Your task to perform on an android device: turn off javascript in the chrome app Image 0: 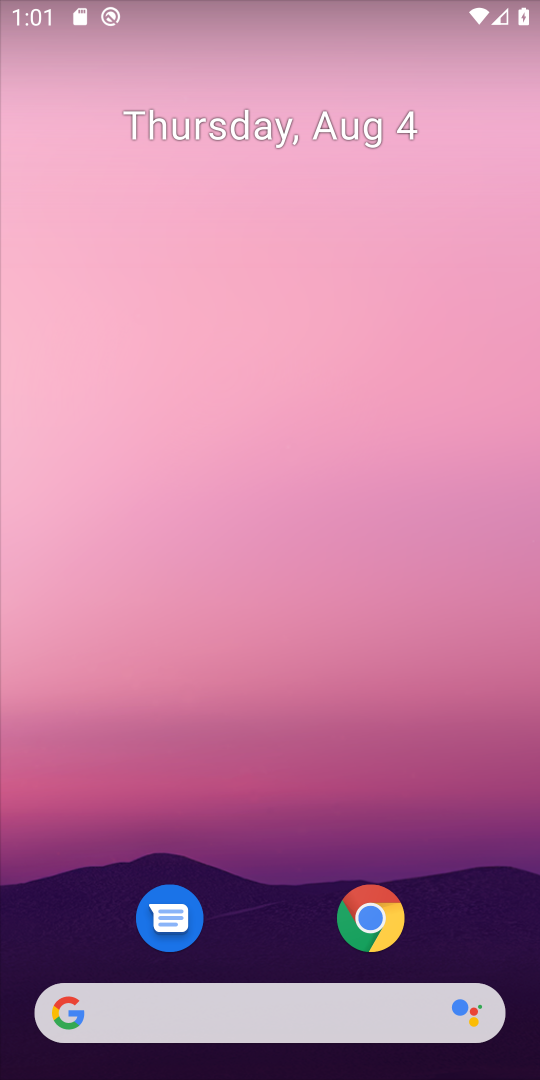
Step 0: click (383, 888)
Your task to perform on an android device: turn off javascript in the chrome app Image 1: 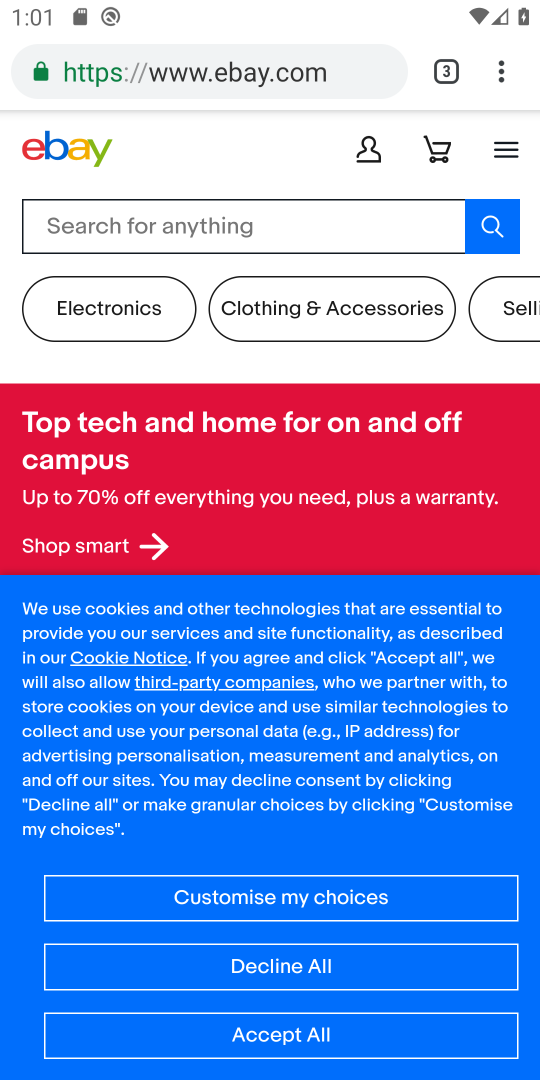
Step 1: click (512, 58)
Your task to perform on an android device: turn off javascript in the chrome app Image 2: 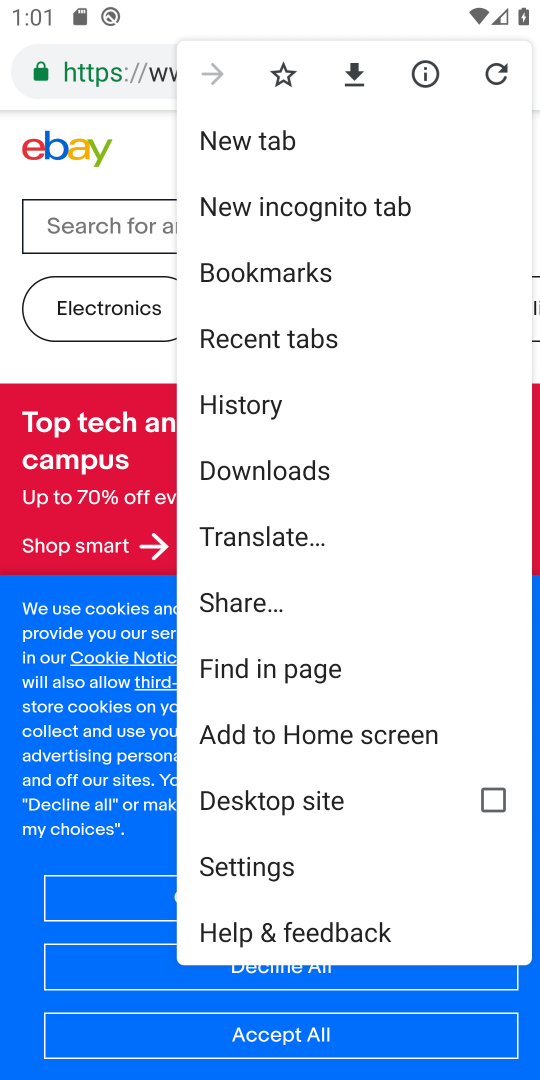
Step 2: click (245, 869)
Your task to perform on an android device: turn off javascript in the chrome app Image 3: 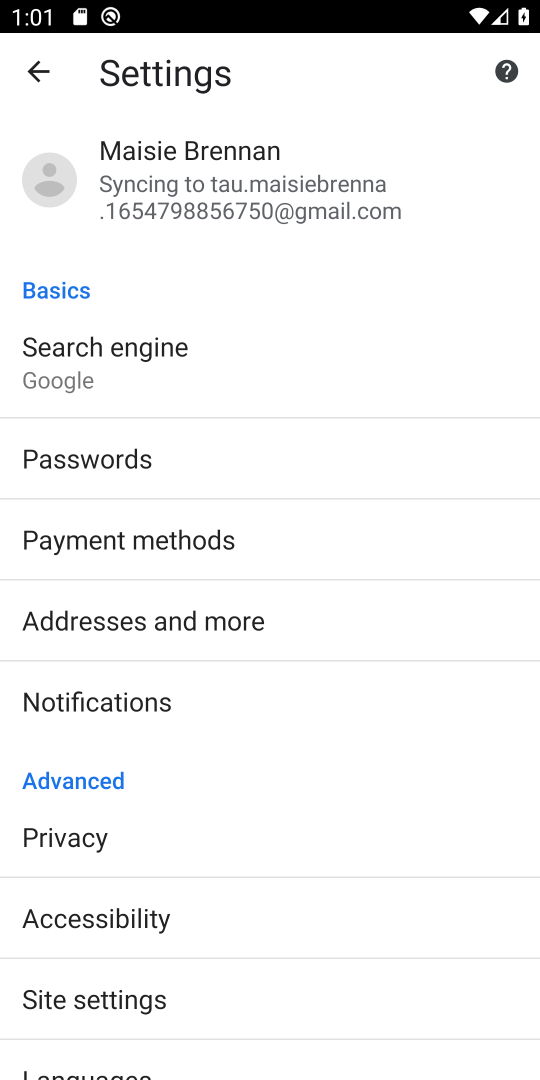
Step 3: drag from (161, 892) to (221, 552)
Your task to perform on an android device: turn off javascript in the chrome app Image 4: 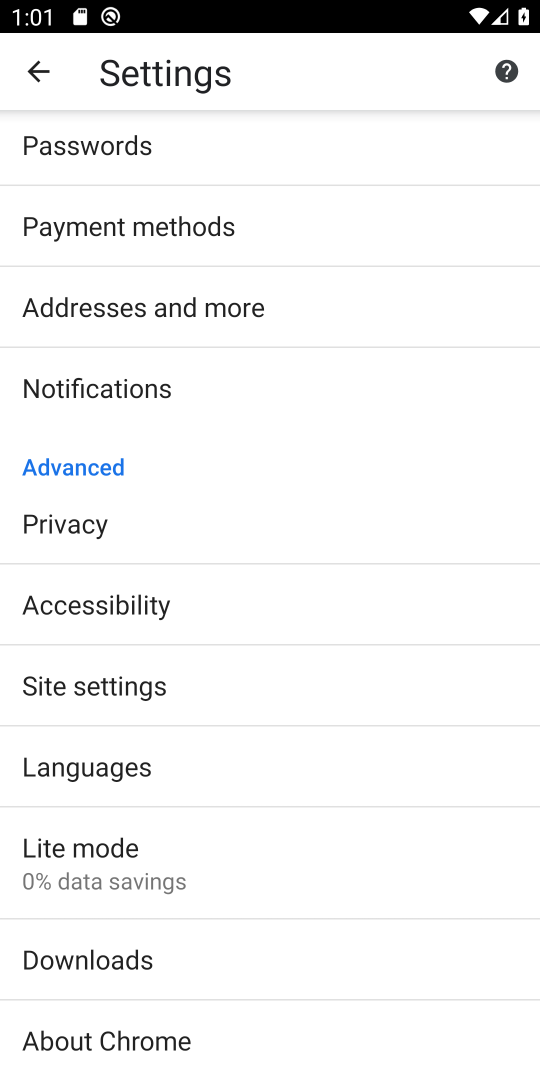
Step 4: click (147, 669)
Your task to perform on an android device: turn off javascript in the chrome app Image 5: 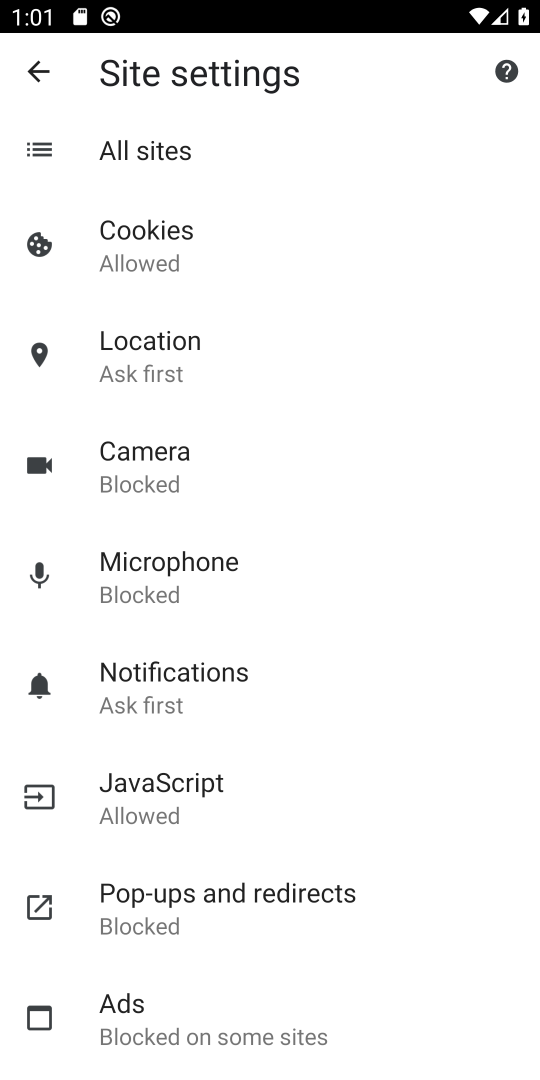
Step 5: click (224, 825)
Your task to perform on an android device: turn off javascript in the chrome app Image 6: 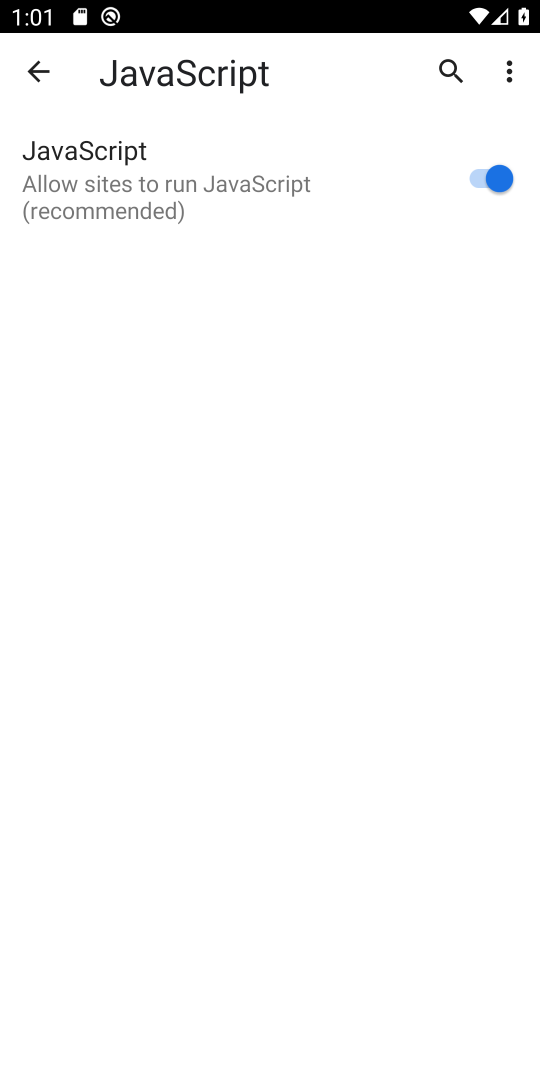
Step 6: click (487, 194)
Your task to perform on an android device: turn off javascript in the chrome app Image 7: 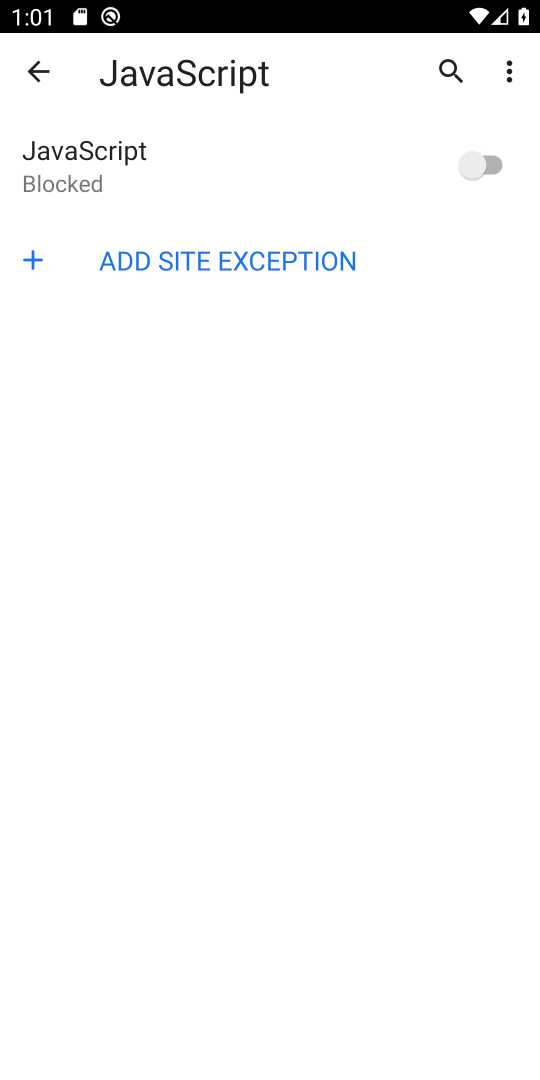
Step 7: task complete